Your task to perform on an android device: What's on my calendar today? Image 0: 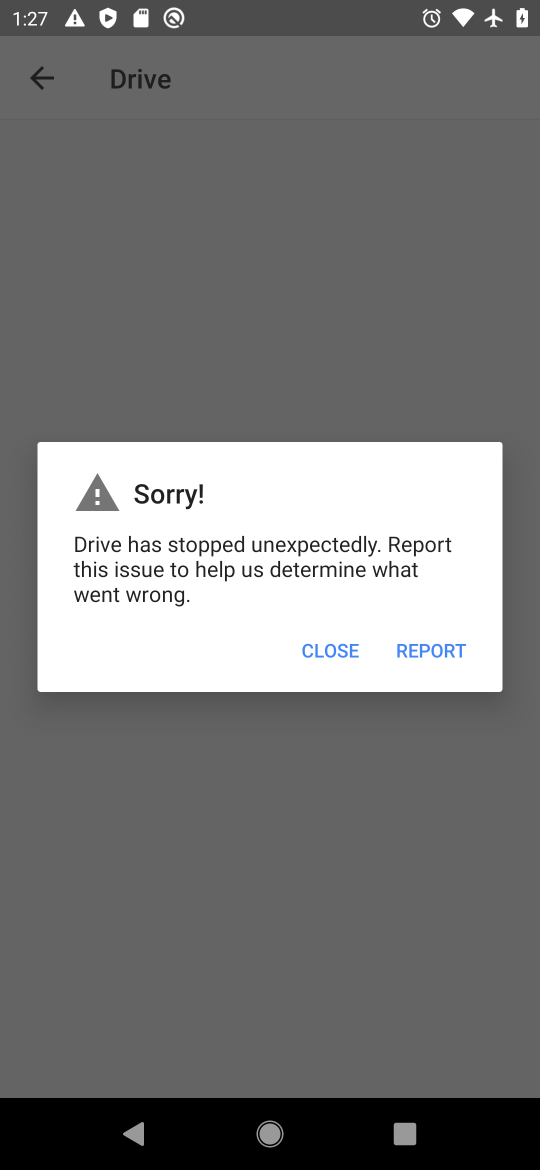
Step 0: task complete